Your task to perform on an android device: Check the news Image 0: 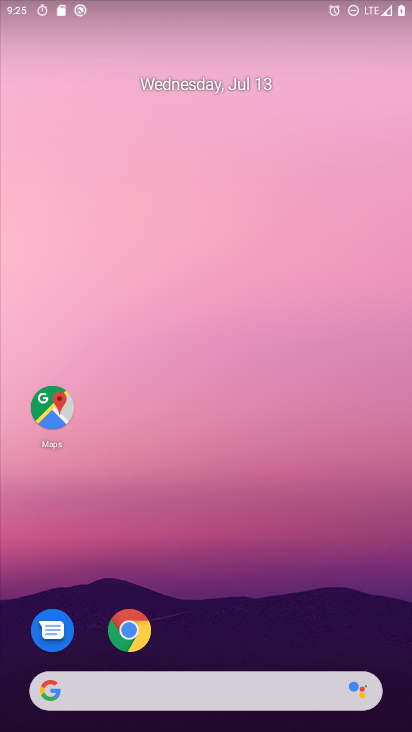
Step 0: drag from (341, 539) to (141, 0)
Your task to perform on an android device: Check the news Image 1: 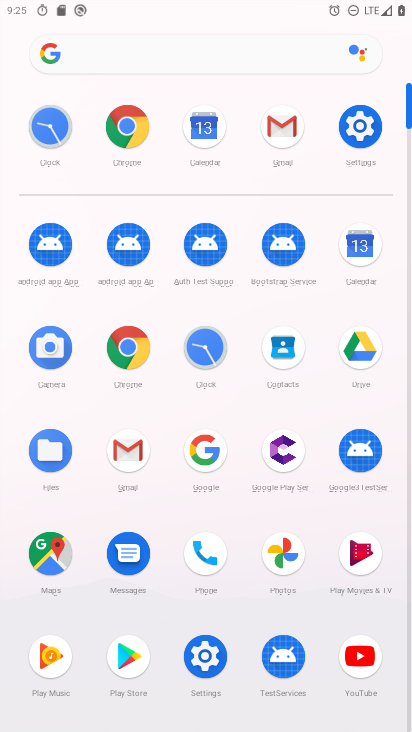
Step 1: click (196, 462)
Your task to perform on an android device: Check the news Image 2: 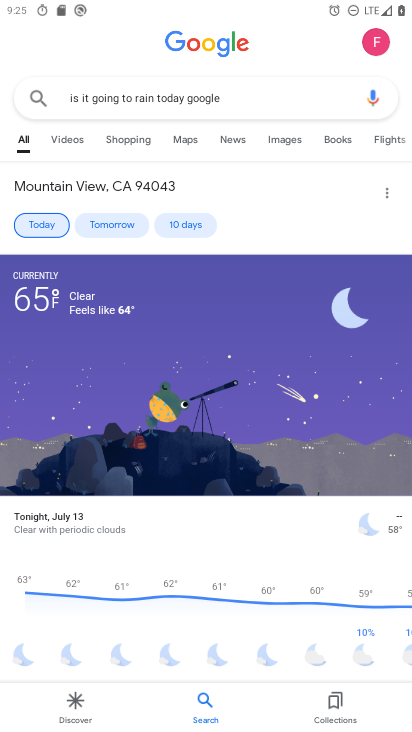
Step 2: press back button
Your task to perform on an android device: Check the news Image 3: 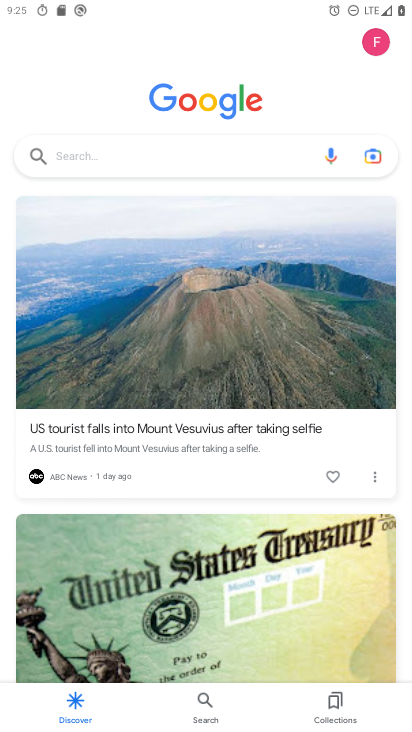
Step 3: click (175, 151)
Your task to perform on an android device: Check the news Image 4: 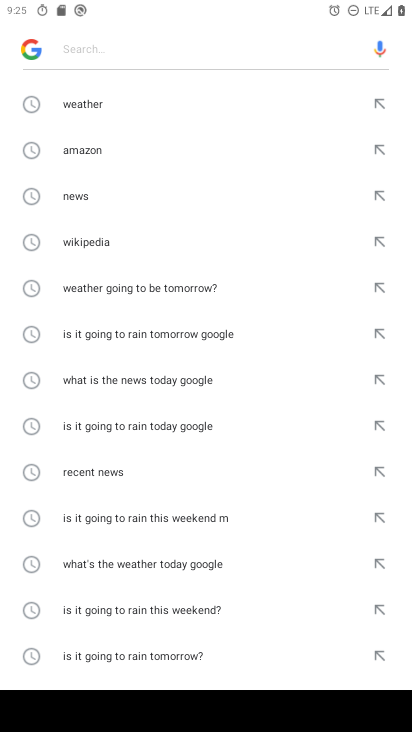
Step 4: click (71, 192)
Your task to perform on an android device: Check the news Image 5: 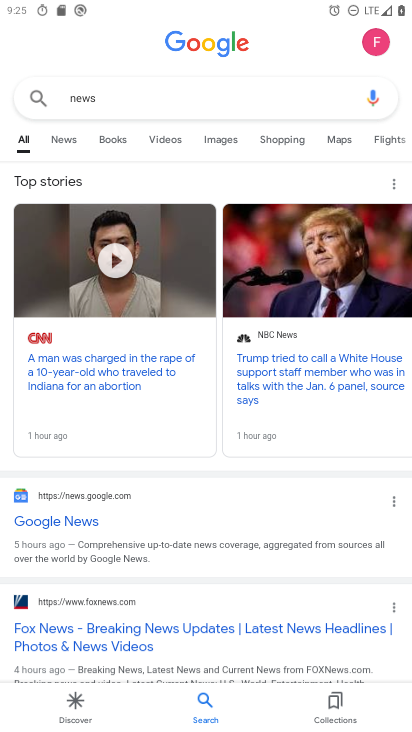
Step 5: task complete